Your task to perform on an android device: Open my contact list Image 0: 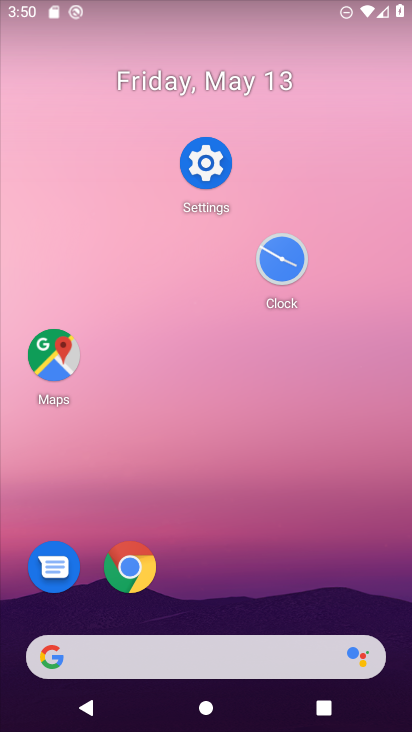
Step 0: drag from (233, 337) to (244, 182)
Your task to perform on an android device: Open my contact list Image 1: 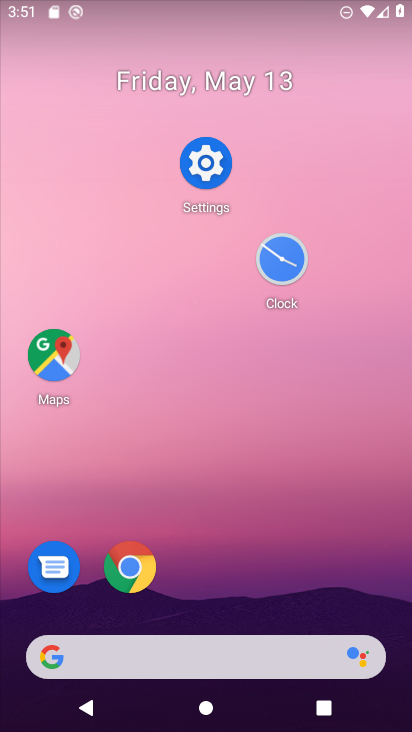
Step 1: drag from (203, 507) to (256, 110)
Your task to perform on an android device: Open my contact list Image 2: 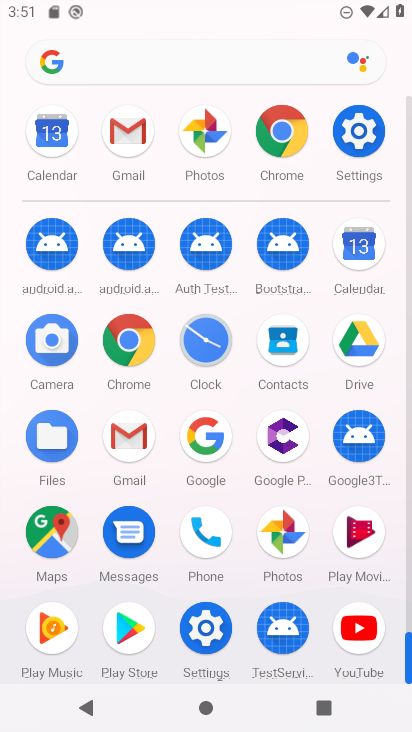
Step 2: click (269, 352)
Your task to perform on an android device: Open my contact list Image 3: 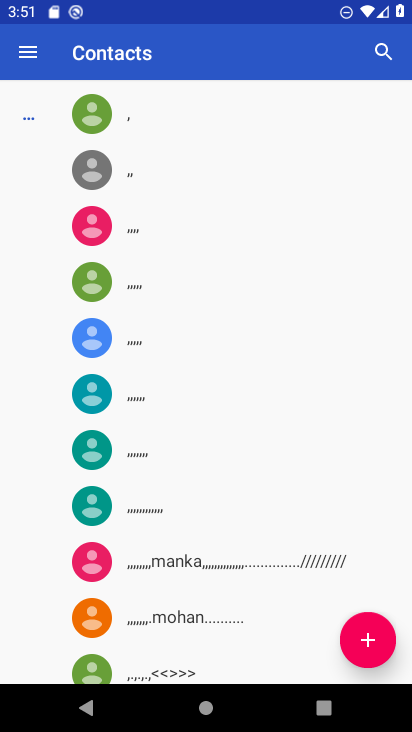
Step 3: task complete